Your task to perform on an android device: Check the weather Image 0: 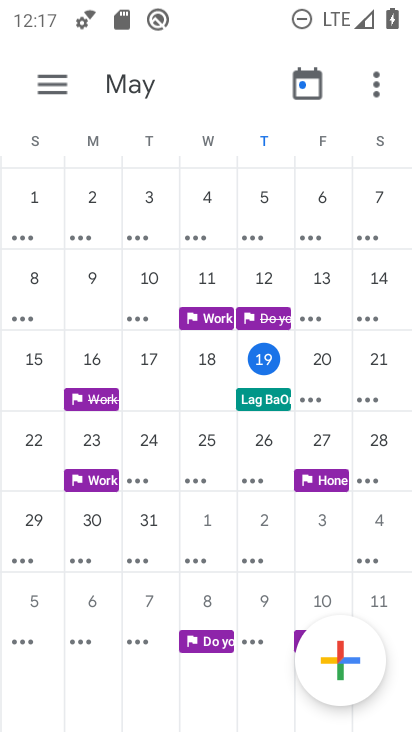
Step 0: press home button
Your task to perform on an android device: Check the weather Image 1: 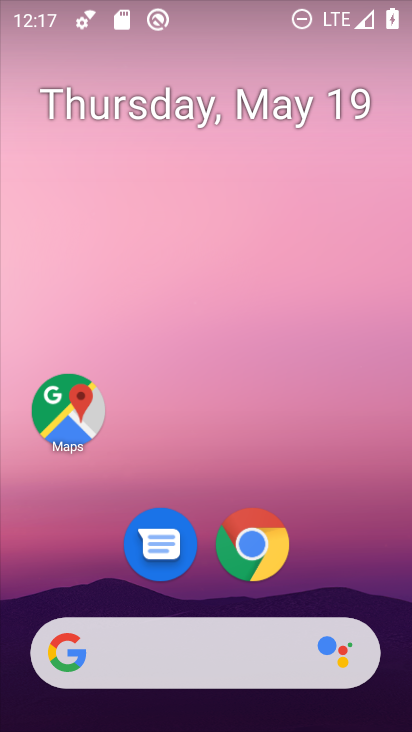
Step 1: click (254, 634)
Your task to perform on an android device: Check the weather Image 2: 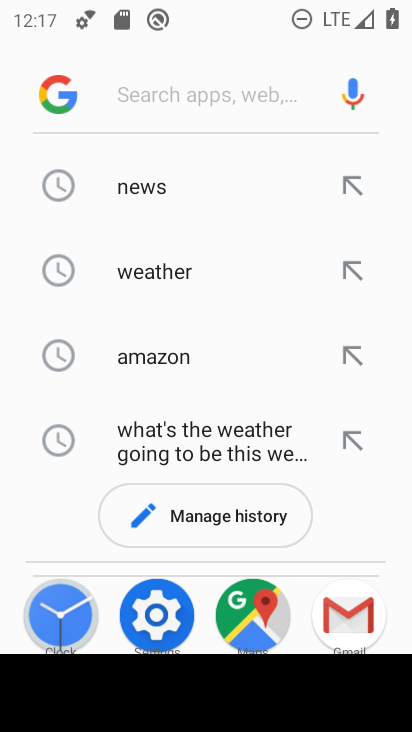
Step 2: click (176, 279)
Your task to perform on an android device: Check the weather Image 3: 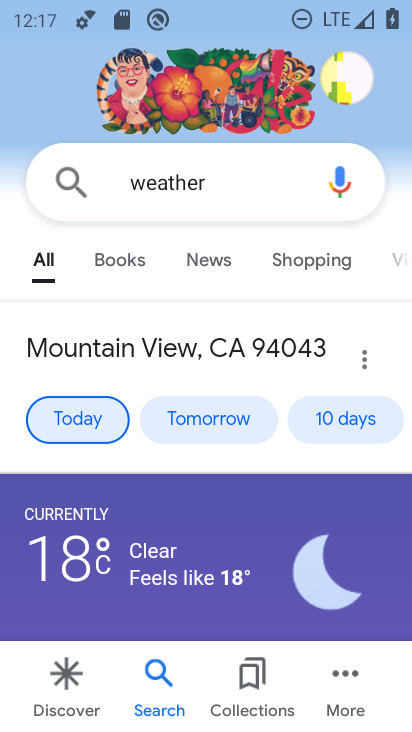
Step 3: task complete